Your task to perform on an android device: Go to Maps Image 0: 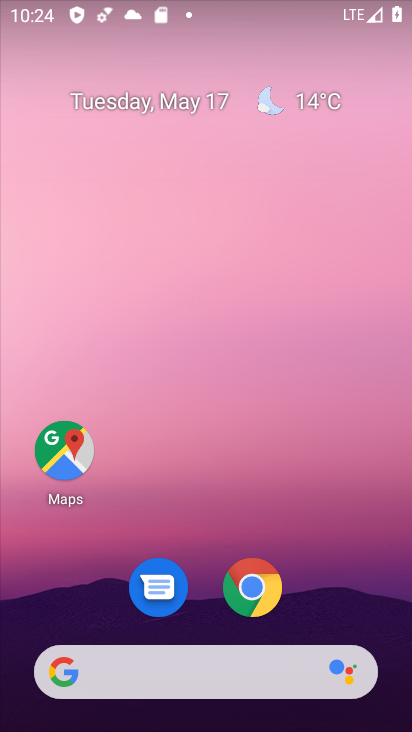
Step 0: click (74, 460)
Your task to perform on an android device: Go to Maps Image 1: 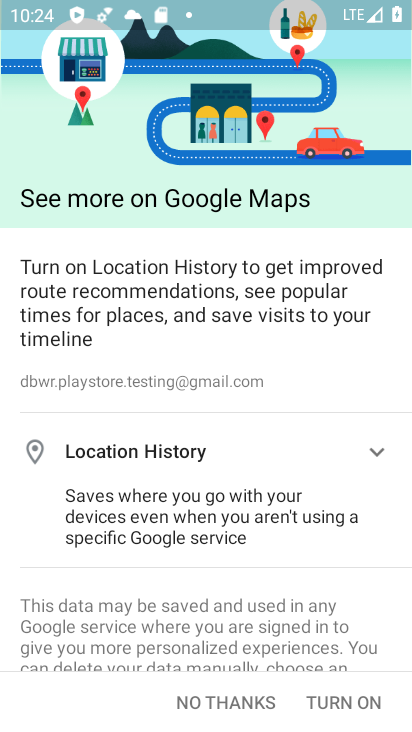
Step 1: click (332, 699)
Your task to perform on an android device: Go to Maps Image 2: 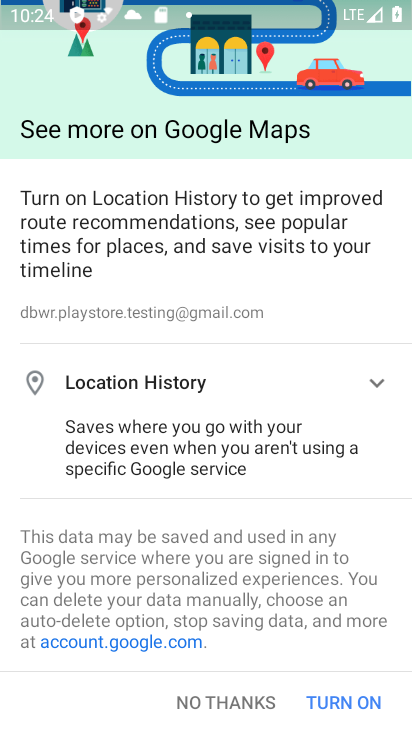
Step 2: click (358, 707)
Your task to perform on an android device: Go to Maps Image 3: 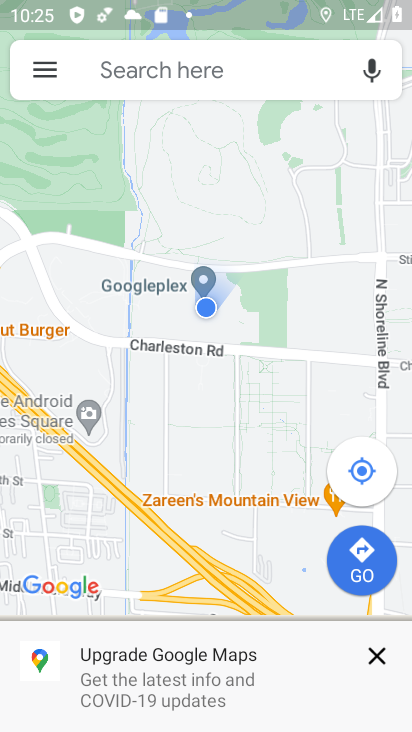
Step 3: task complete